Your task to perform on an android device: set default search engine in the chrome app Image 0: 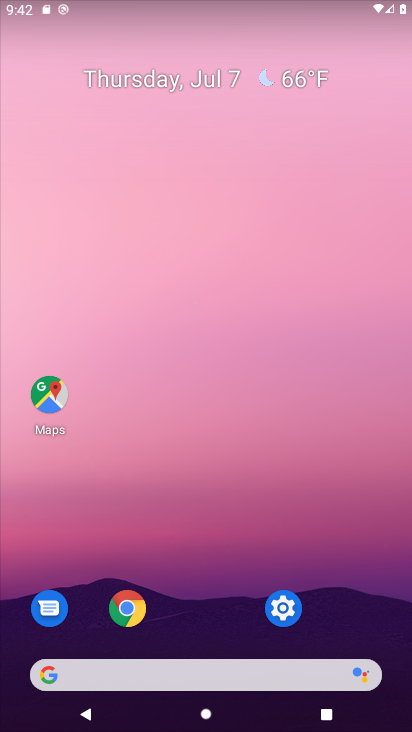
Step 0: click (132, 622)
Your task to perform on an android device: set default search engine in the chrome app Image 1: 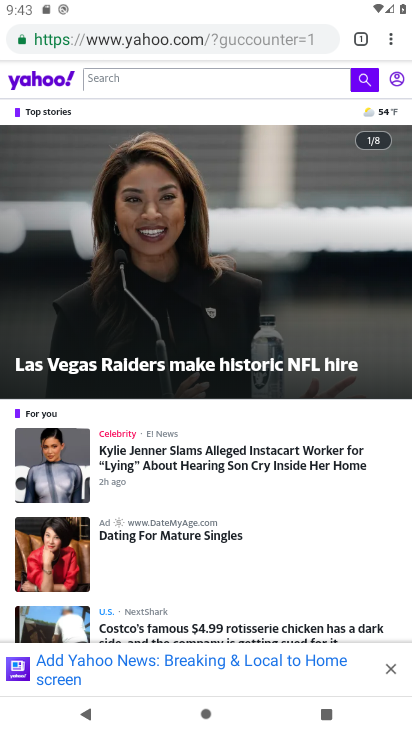
Step 1: click (398, 36)
Your task to perform on an android device: set default search engine in the chrome app Image 2: 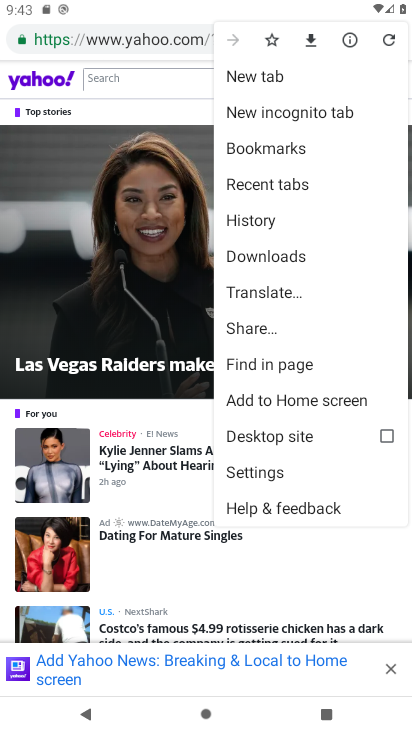
Step 2: click (278, 464)
Your task to perform on an android device: set default search engine in the chrome app Image 3: 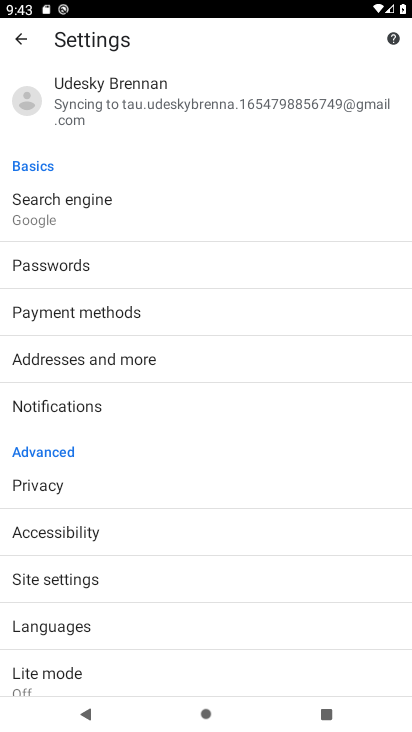
Step 3: click (122, 219)
Your task to perform on an android device: set default search engine in the chrome app Image 4: 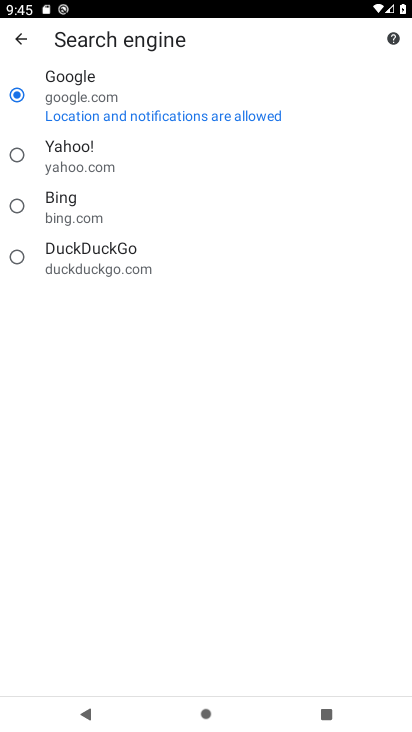
Step 4: task complete